Your task to perform on an android device: turn off notifications in google photos Image 0: 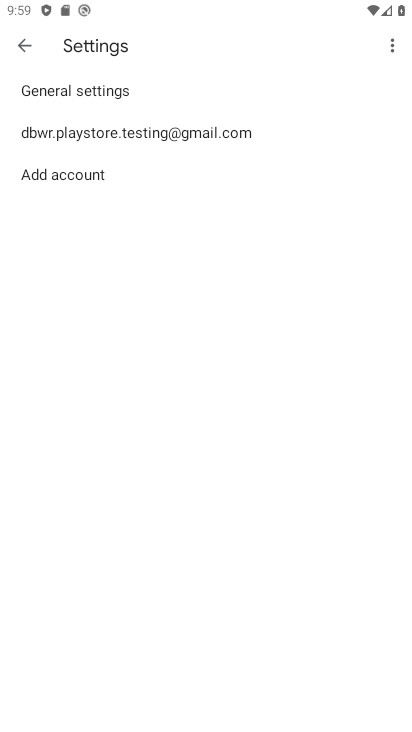
Step 0: press home button
Your task to perform on an android device: turn off notifications in google photos Image 1: 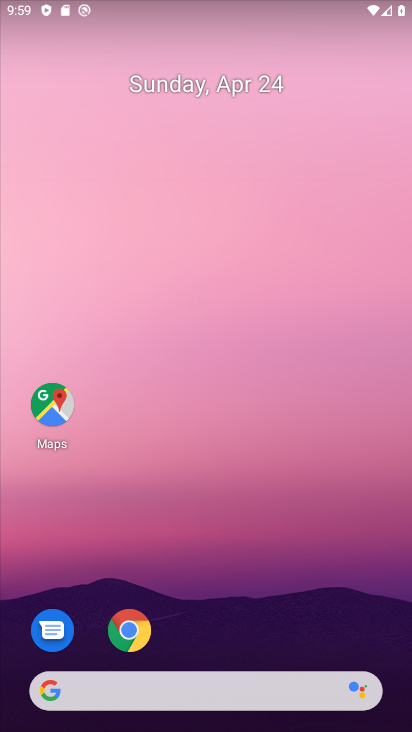
Step 1: drag from (236, 641) to (284, 178)
Your task to perform on an android device: turn off notifications in google photos Image 2: 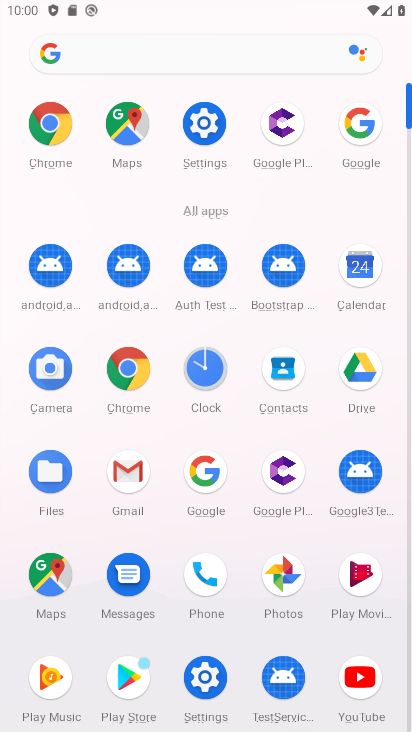
Step 2: click (285, 577)
Your task to perform on an android device: turn off notifications in google photos Image 3: 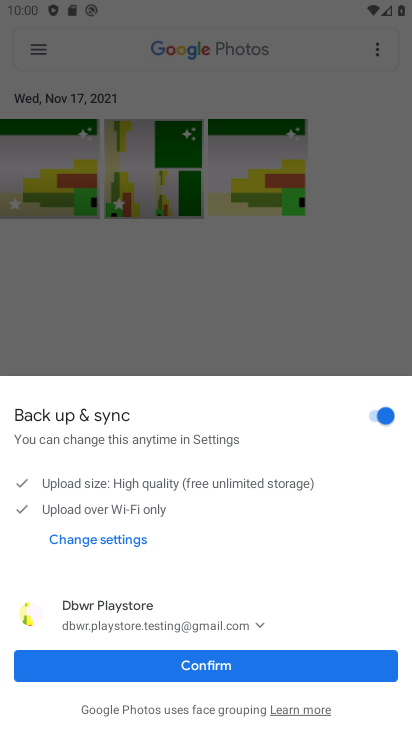
Step 3: click (244, 666)
Your task to perform on an android device: turn off notifications in google photos Image 4: 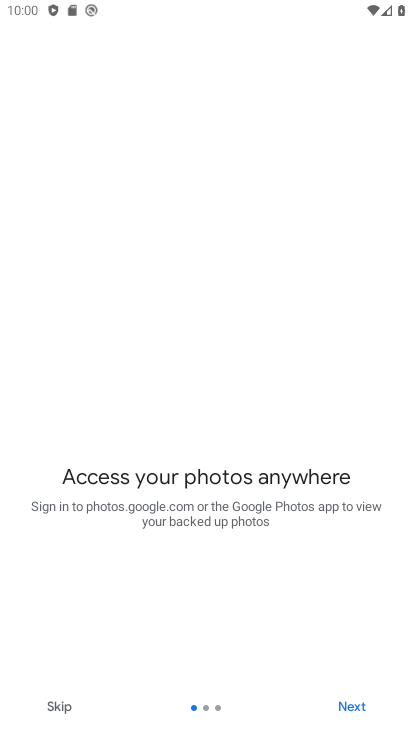
Step 4: click (333, 697)
Your task to perform on an android device: turn off notifications in google photos Image 5: 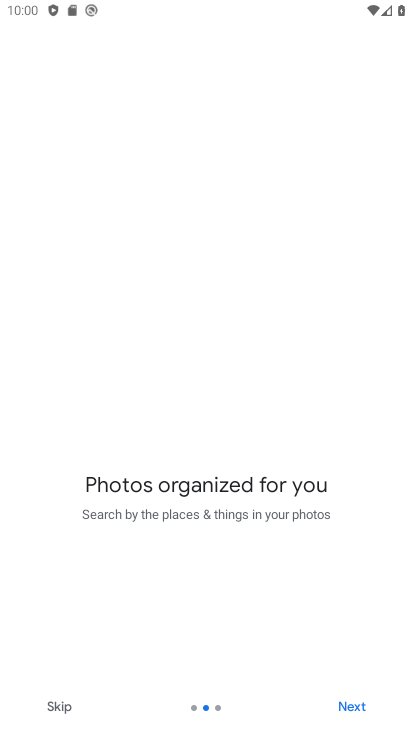
Step 5: click (343, 691)
Your task to perform on an android device: turn off notifications in google photos Image 6: 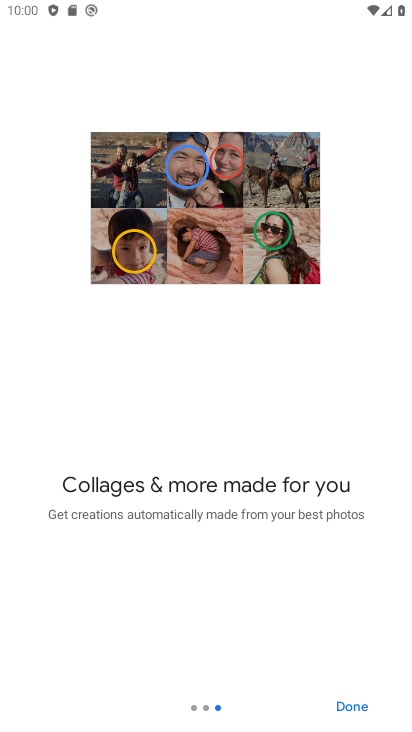
Step 6: click (345, 695)
Your task to perform on an android device: turn off notifications in google photos Image 7: 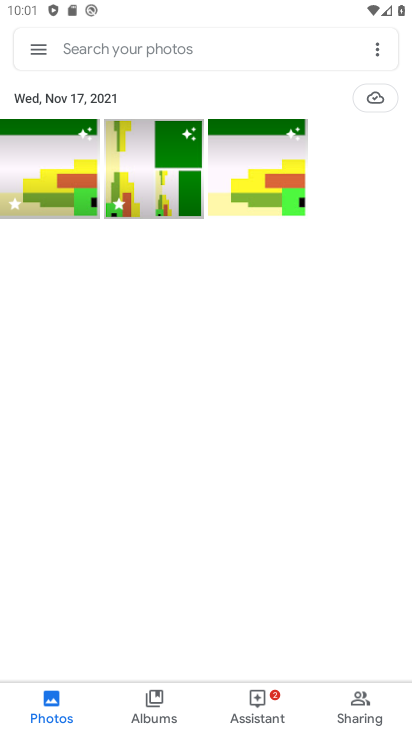
Step 7: click (39, 42)
Your task to perform on an android device: turn off notifications in google photos Image 8: 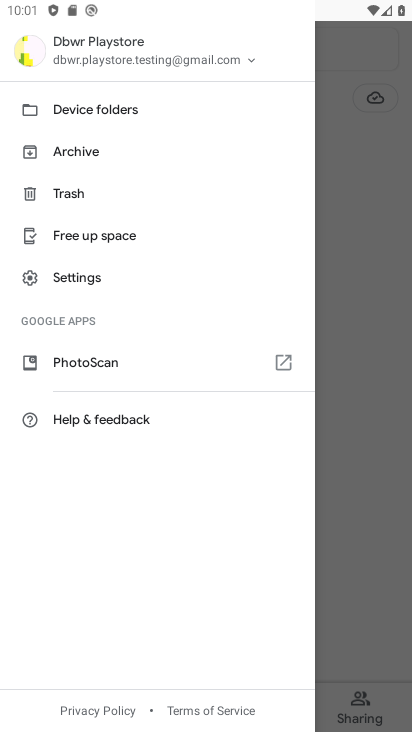
Step 8: click (81, 290)
Your task to perform on an android device: turn off notifications in google photos Image 9: 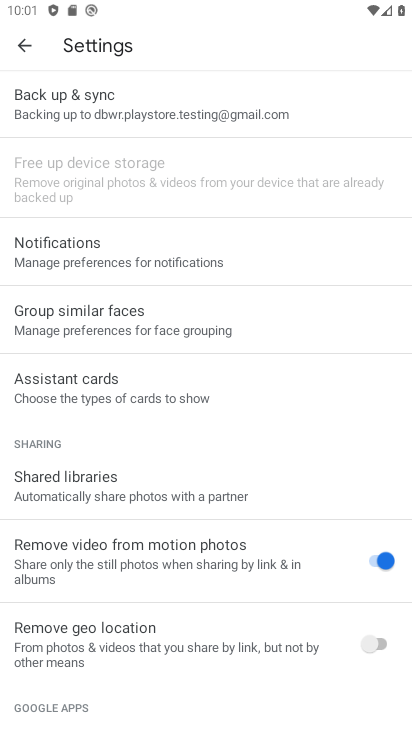
Step 9: click (105, 260)
Your task to perform on an android device: turn off notifications in google photos Image 10: 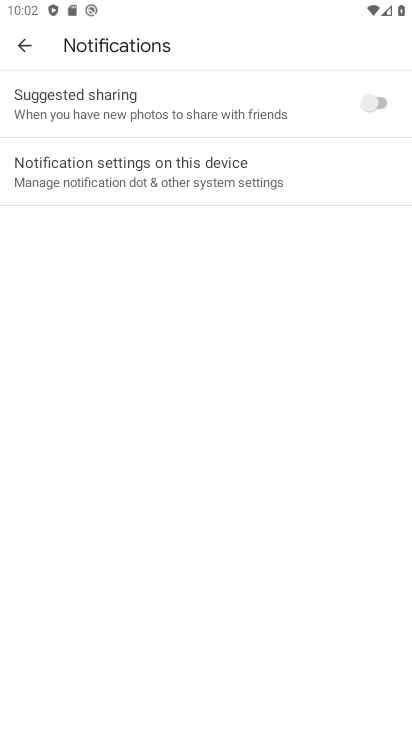
Step 10: click (123, 184)
Your task to perform on an android device: turn off notifications in google photos Image 11: 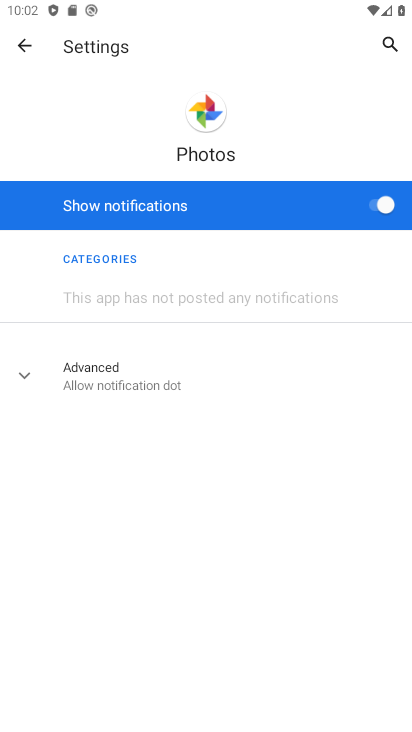
Step 11: click (373, 205)
Your task to perform on an android device: turn off notifications in google photos Image 12: 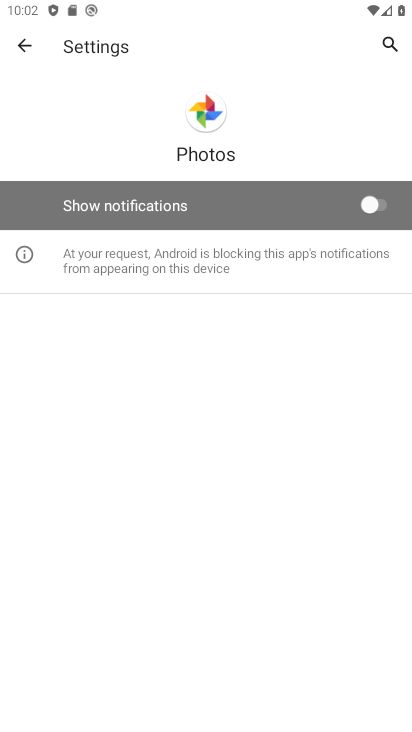
Step 12: task complete